Your task to perform on an android device: check the backup settings in the google photos Image 0: 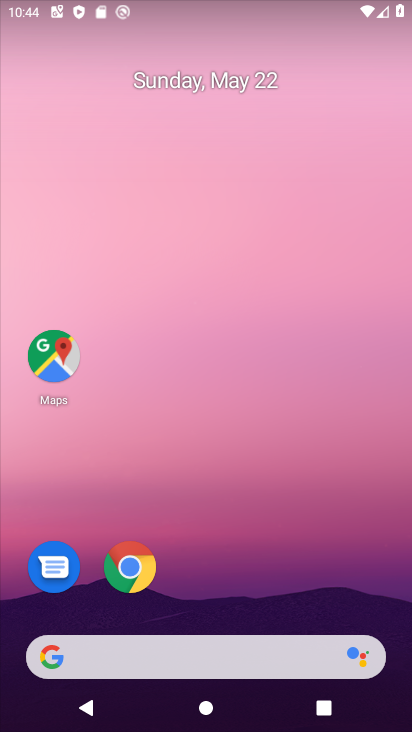
Step 0: drag from (392, 566) to (341, 175)
Your task to perform on an android device: check the backup settings in the google photos Image 1: 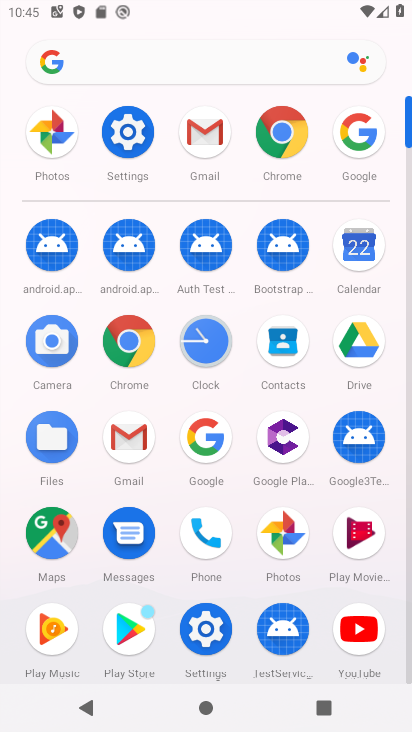
Step 1: click (284, 520)
Your task to perform on an android device: check the backup settings in the google photos Image 2: 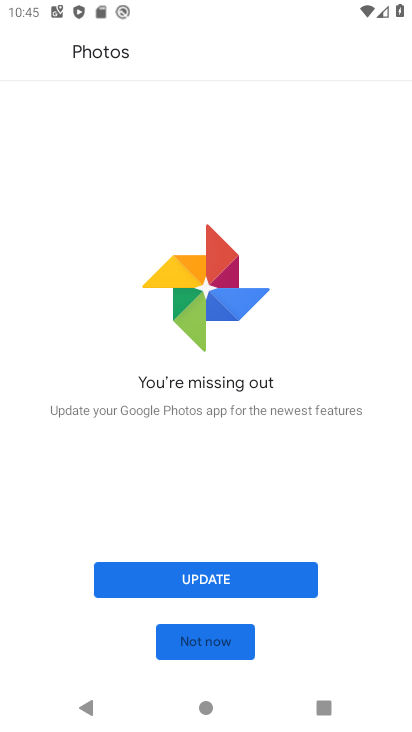
Step 2: click (266, 571)
Your task to perform on an android device: check the backup settings in the google photos Image 3: 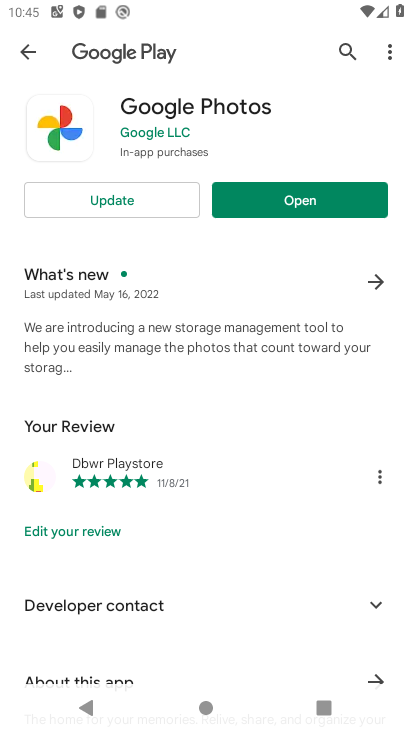
Step 3: click (94, 193)
Your task to perform on an android device: check the backup settings in the google photos Image 4: 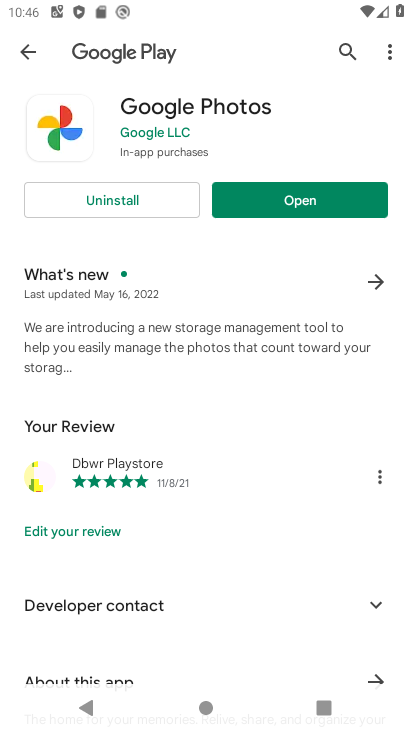
Step 4: click (359, 207)
Your task to perform on an android device: check the backup settings in the google photos Image 5: 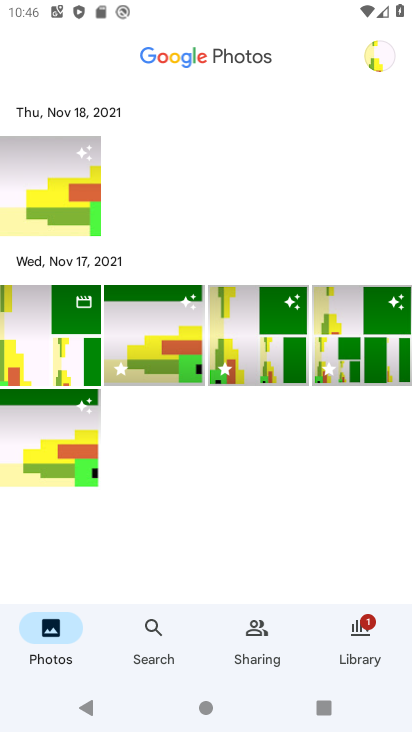
Step 5: click (392, 62)
Your task to perform on an android device: check the backup settings in the google photos Image 6: 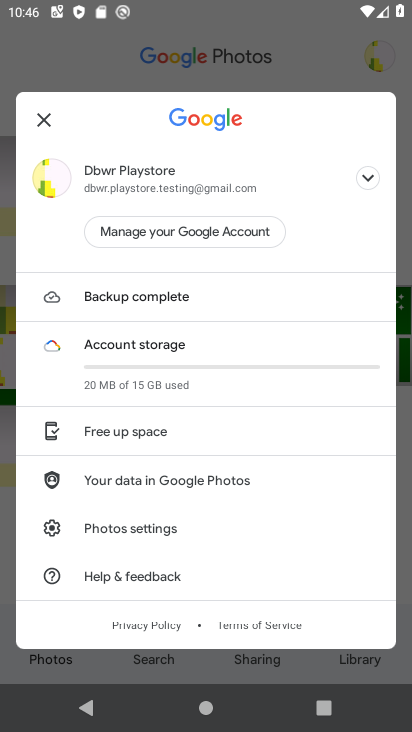
Step 6: click (160, 530)
Your task to perform on an android device: check the backup settings in the google photos Image 7: 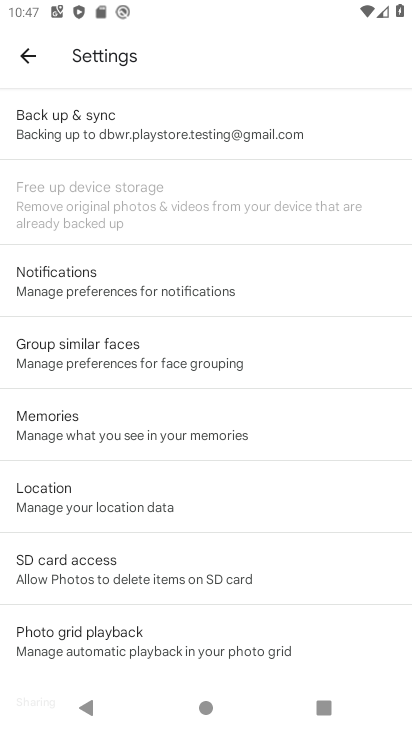
Step 7: click (152, 144)
Your task to perform on an android device: check the backup settings in the google photos Image 8: 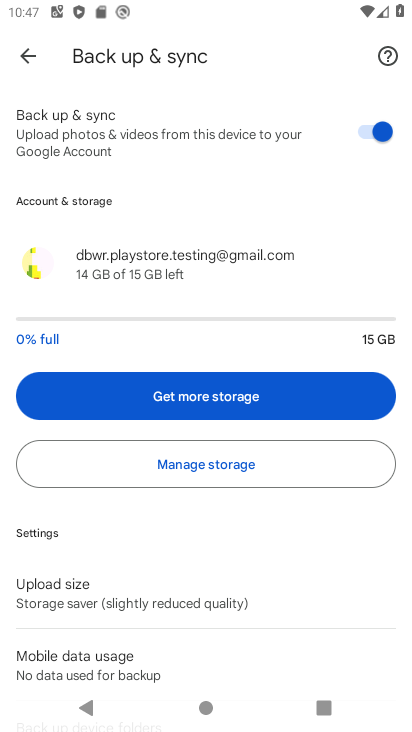
Step 8: task complete